Your task to perform on an android device: check android version Image 0: 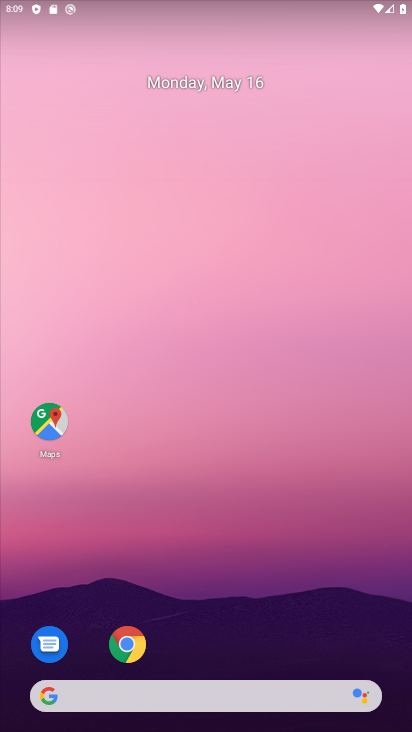
Step 0: drag from (404, 682) to (354, 83)
Your task to perform on an android device: check android version Image 1: 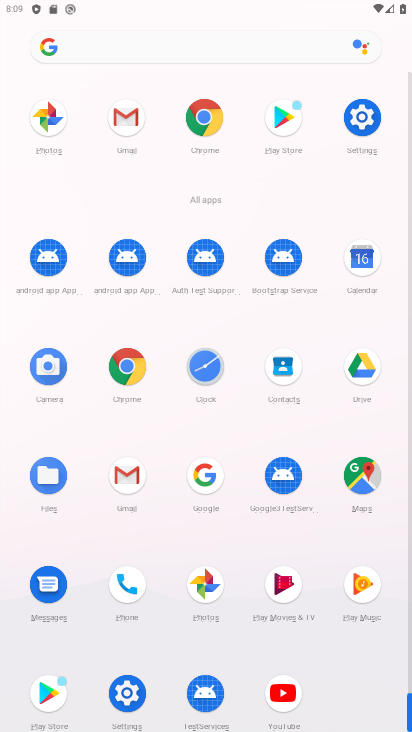
Step 1: click (370, 107)
Your task to perform on an android device: check android version Image 2: 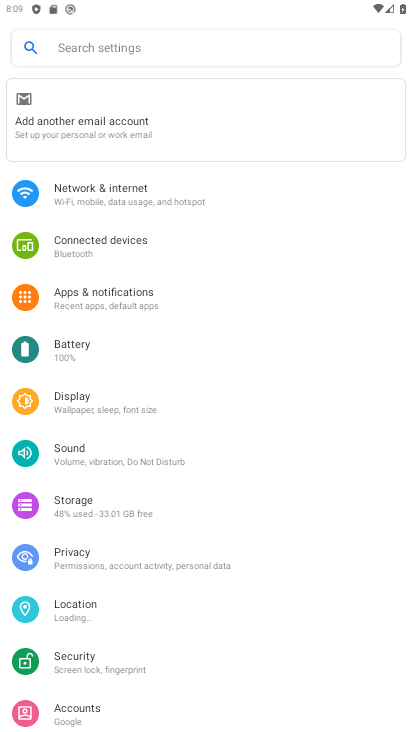
Step 2: task complete